Your task to perform on an android device: install app "Truecaller" Image 0: 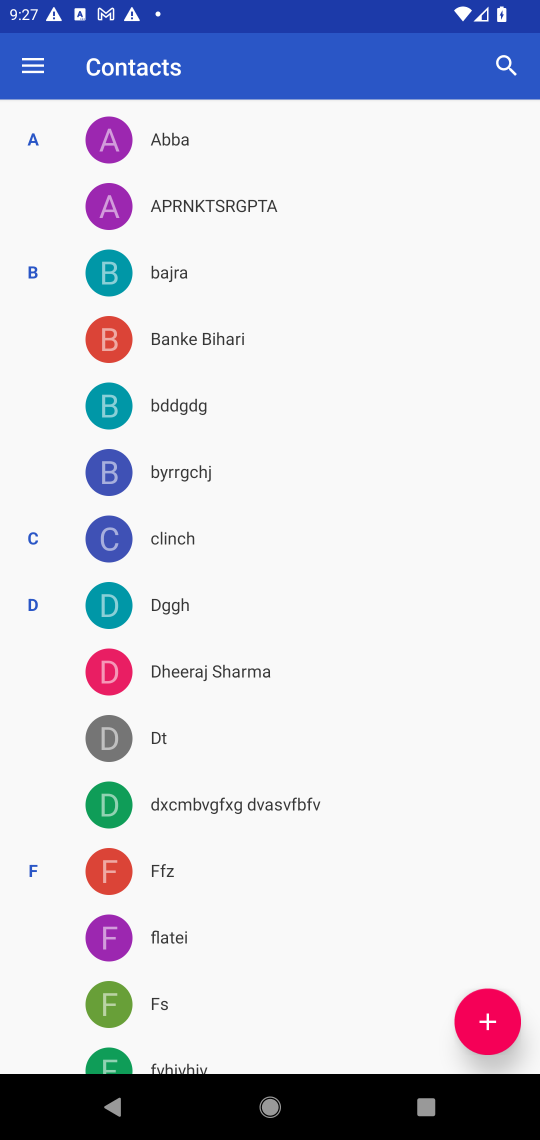
Step 0: press home button
Your task to perform on an android device: install app "Truecaller" Image 1: 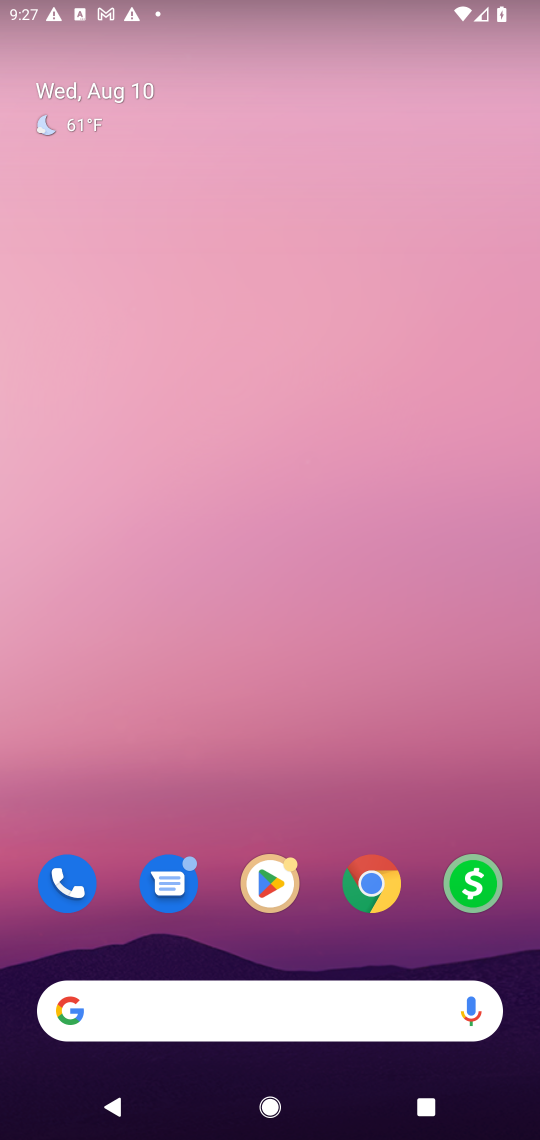
Step 1: click (287, 864)
Your task to perform on an android device: install app "Truecaller" Image 2: 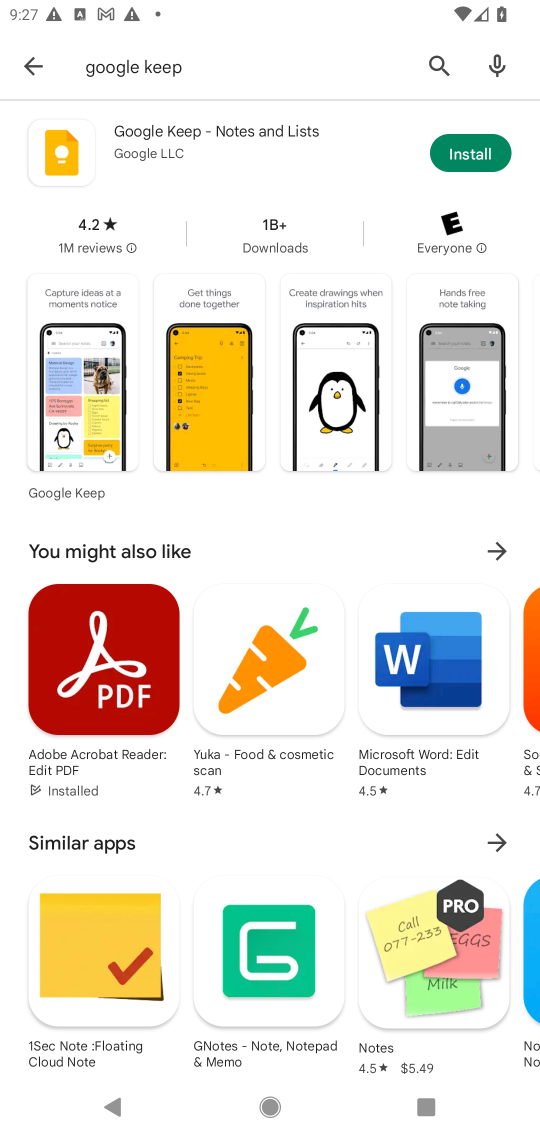
Step 2: click (426, 65)
Your task to perform on an android device: install app "Truecaller" Image 3: 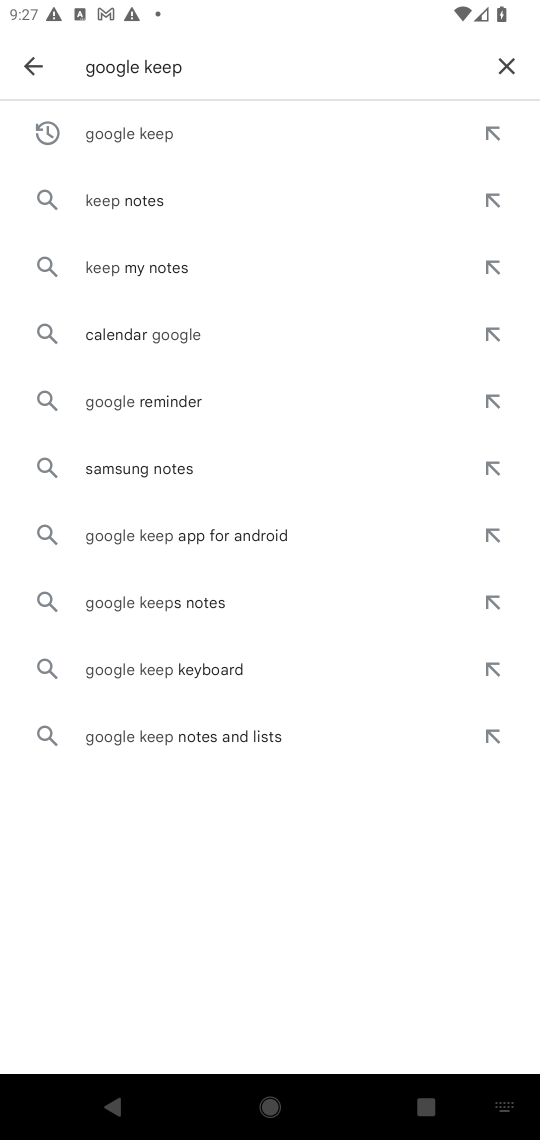
Step 3: click (504, 68)
Your task to perform on an android device: install app "Truecaller" Image 4: 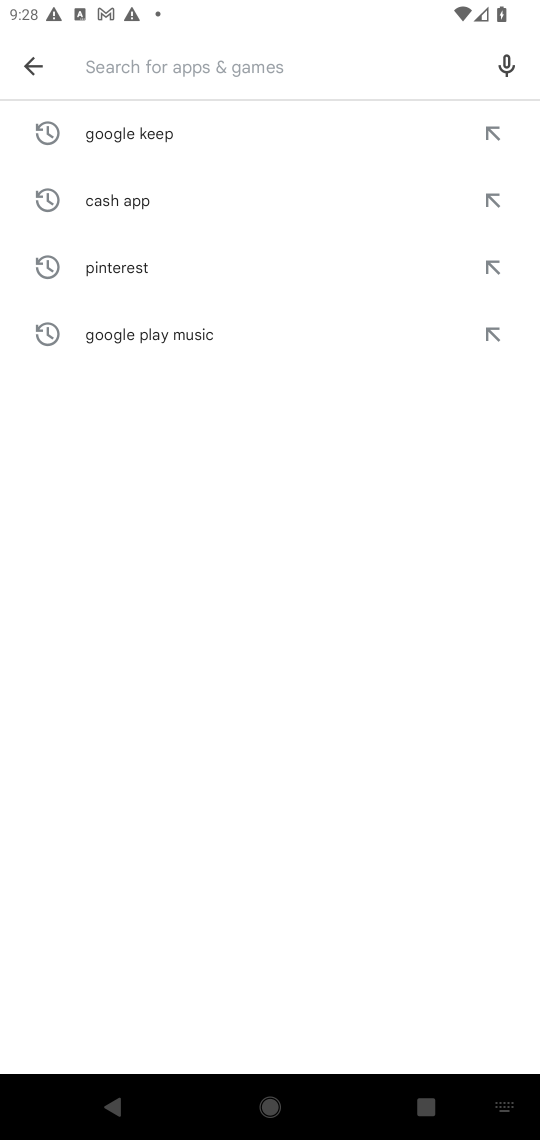
Step 4: type "Truecaller"
Your task to perform on an android device: install app "Truecaller" Image 5: 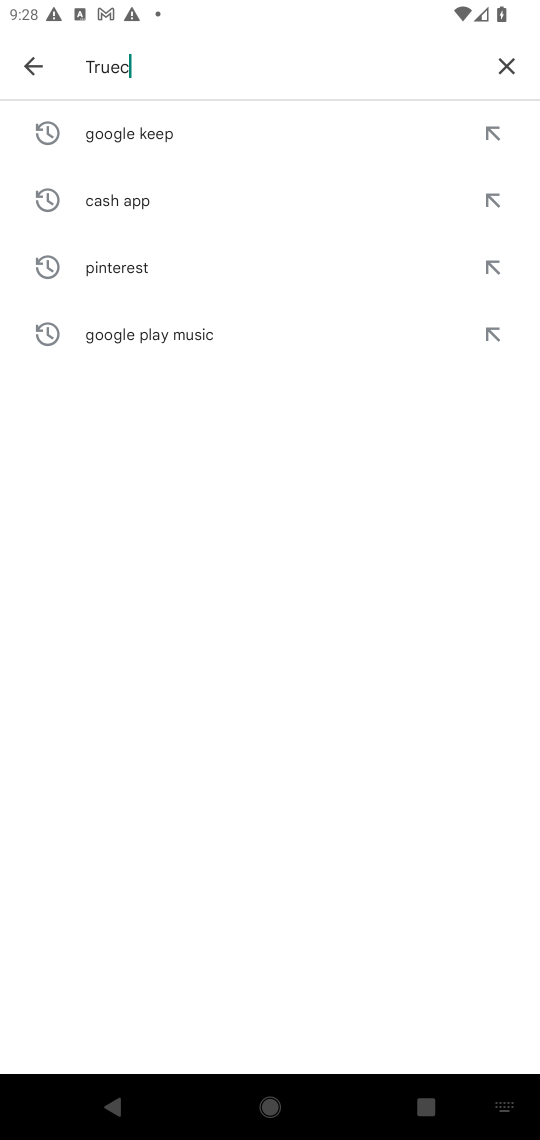
Step 5: type ""
Your task to perform on an android device: install app "Truecaller" Image 6: 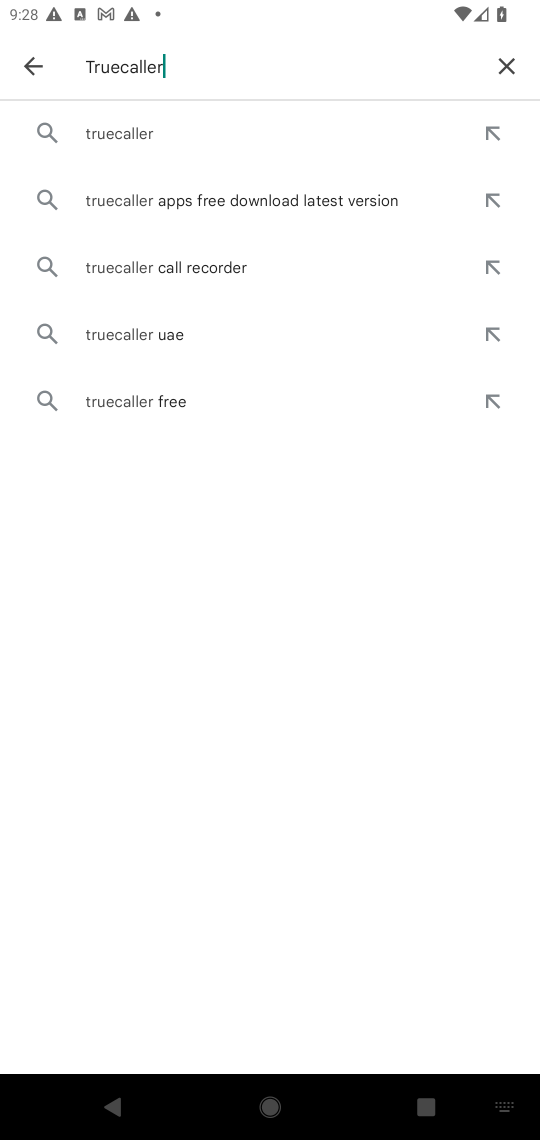
Step 6: click (155, 133)
Your task to perform on an android device: install app "Truecaller" Image 7: 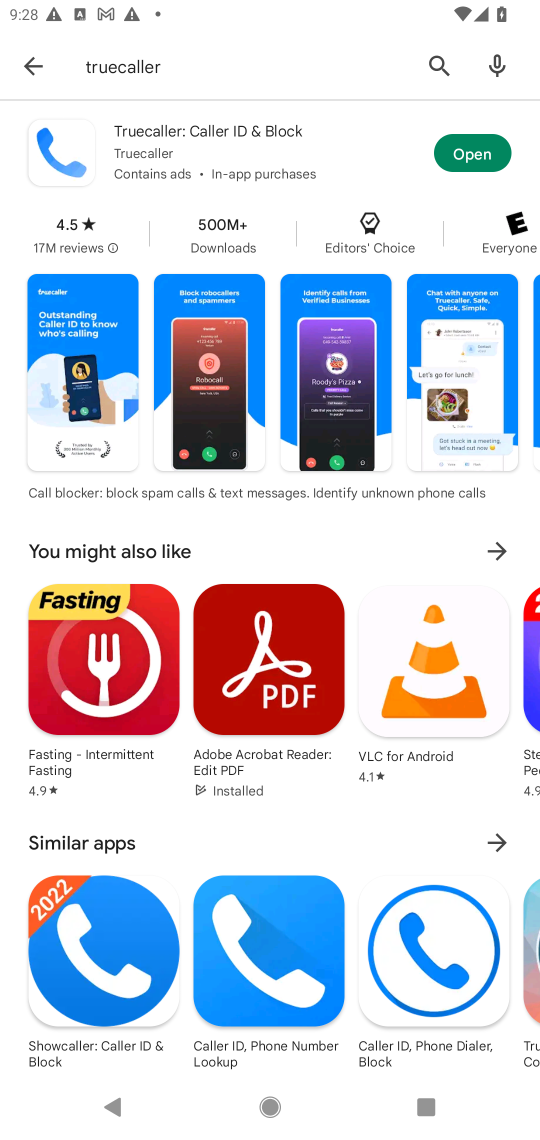
Step 7: task complete